Your task to perform on an android device: turn off translation in the chrome app Image 0: 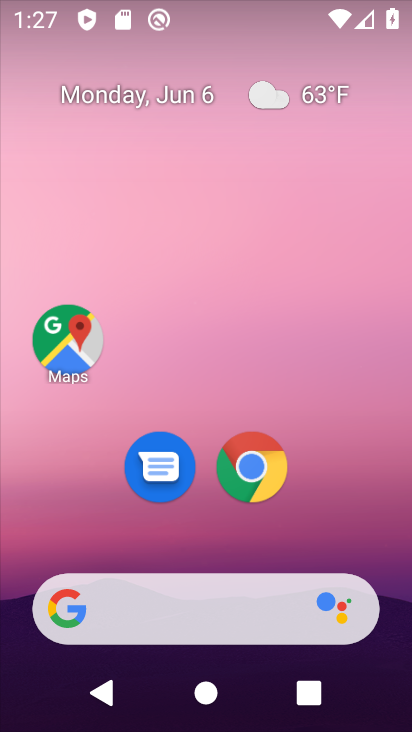
Step 0: drag from (396, 621) to (337, 53)
Your task to perform on an android device: turn off translation in the chrome app Image 1: 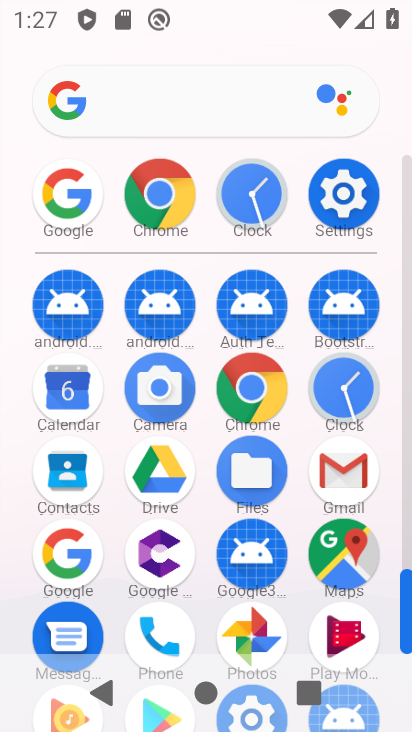
Step 1: click (234, 414)
Your task to perform on an android device: turn off translation in the chrome app Image 2: 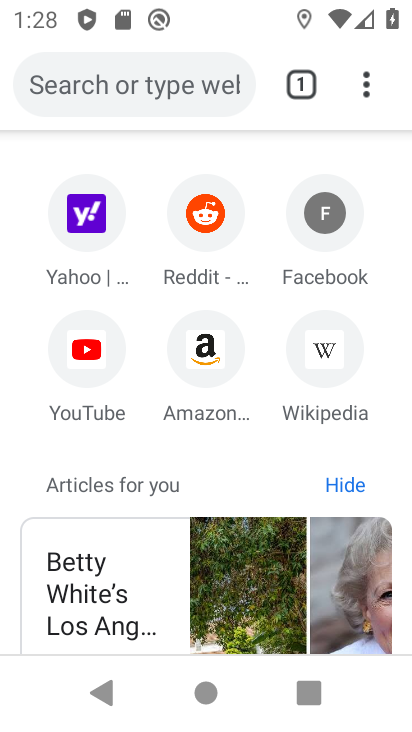
Step 2: click (373, 85)
Your task to perform on an android device: turn off translation in the chrome app Image 3: 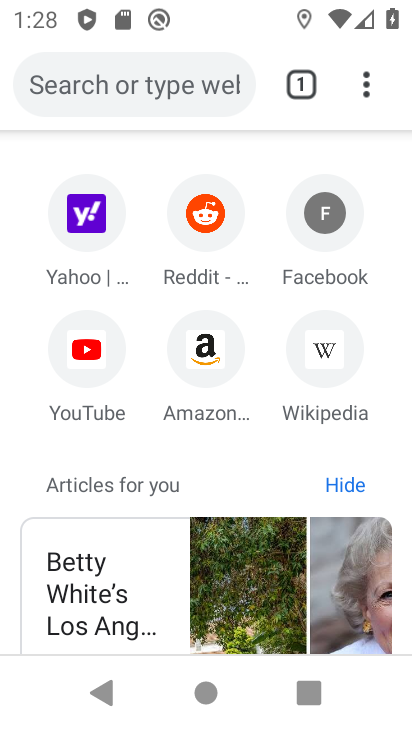
Step 3: click (371, 73)
Your task to perform on an android device: turn off translation in the chrome app Image 4: 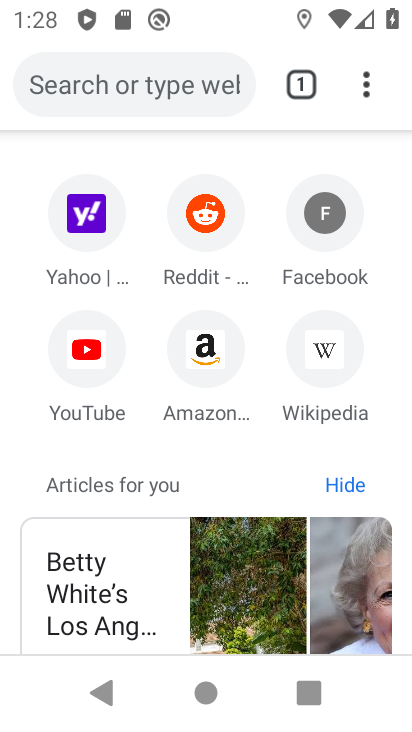
Step 4: click (364, 81)
Your task to perform on an android device: turn off translation in the chrome app Image 5: 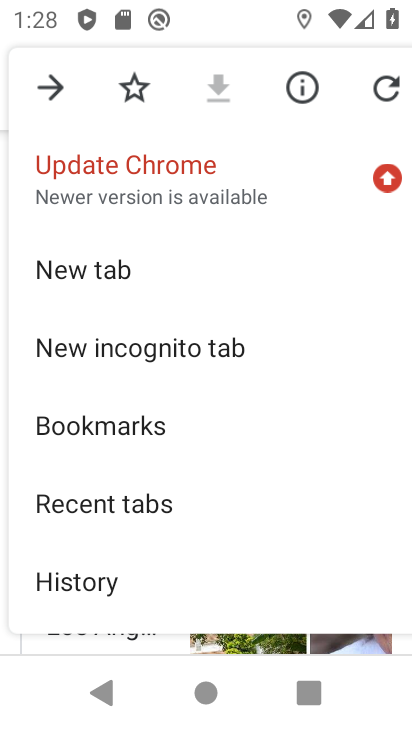
Step 5: drag from (107, 565) to (157, 138)
Your task to perform on an android device: turn off translation in the chrome app Image 6: 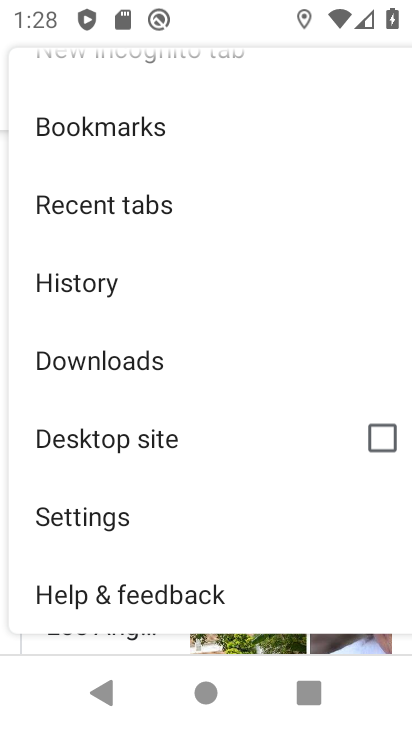
Step 6: click (72, 528)
Your task to perform on an android device: turn off translation in the chrome app Image 7: 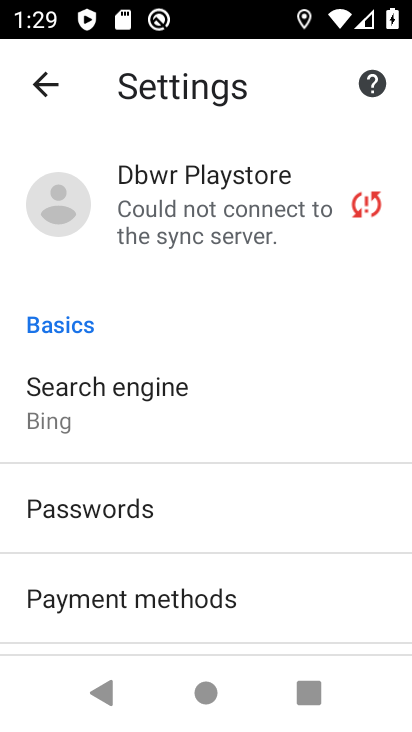
Step 7: drag from (126, 636) to (149, 86)
Your task to perform on an android device: turn off translation in the chrome app Image 8: 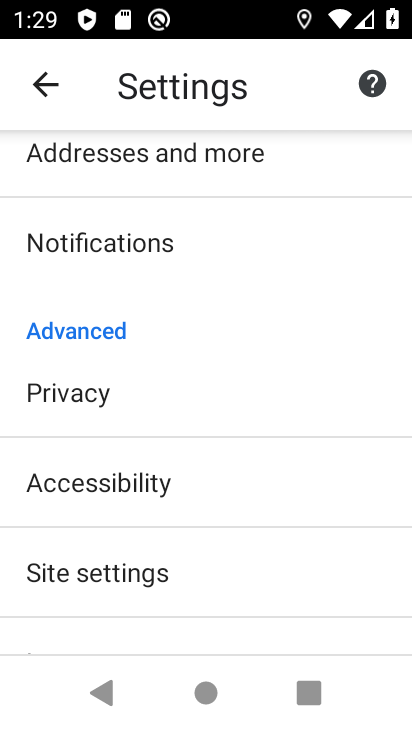
Step 8: click (174, 631)
Your task to perform on an android device: turn off translation in the chrome app Image 9: 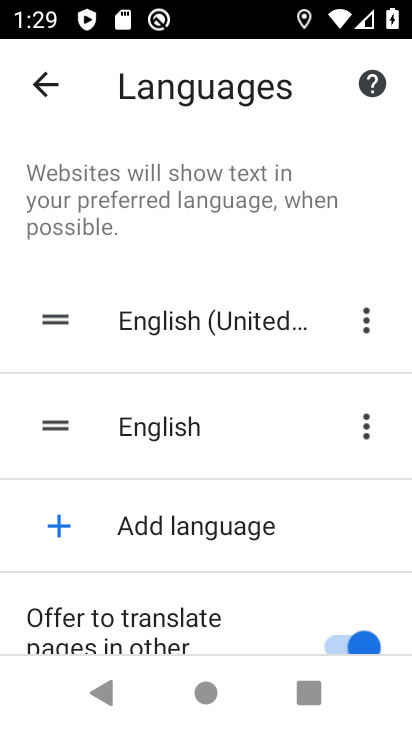
Step 9: click (318, 630)
Your task to perform on an android device: turn off translation in the chrome app Image 10: 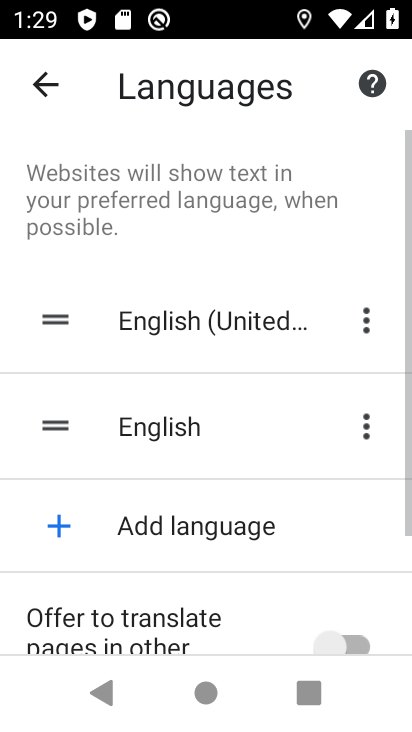
Step 10: task complete